Your task to perform on an android device: Check the weather Image 0: 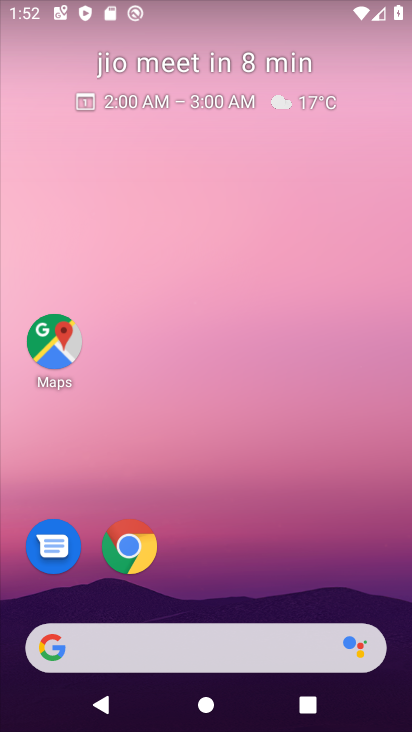
Step 0: drag from (265, 577) to (273, 24)
Your task to perform on an android device: Check the weather Image 1: 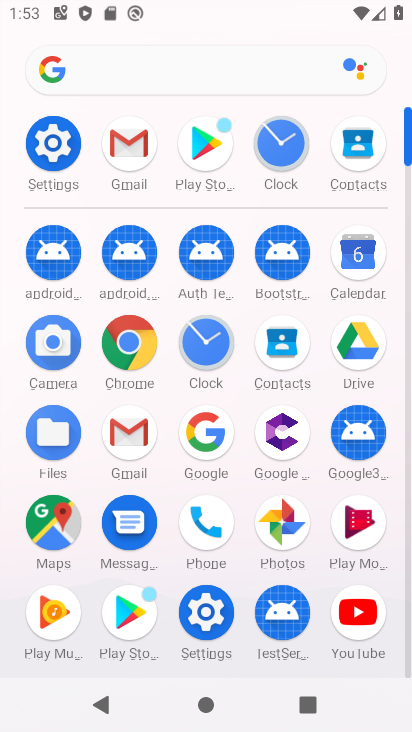
Step 1: click (176, 80)
Your task to perform on an android device: Check the weather Image 2: 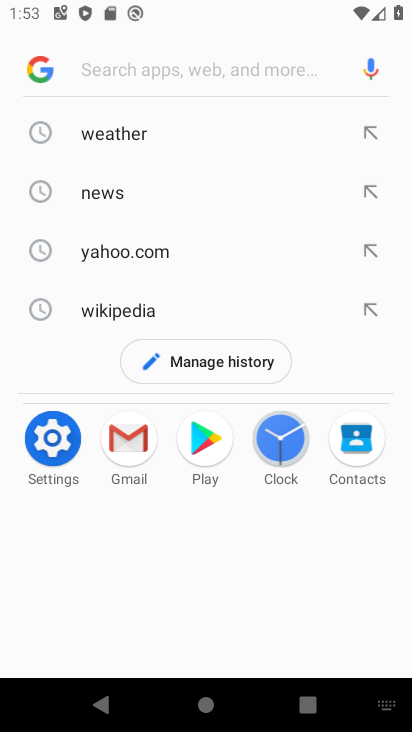
Step 2: type "whether"
Your task to perform on an android device: Check the weather Image 3: 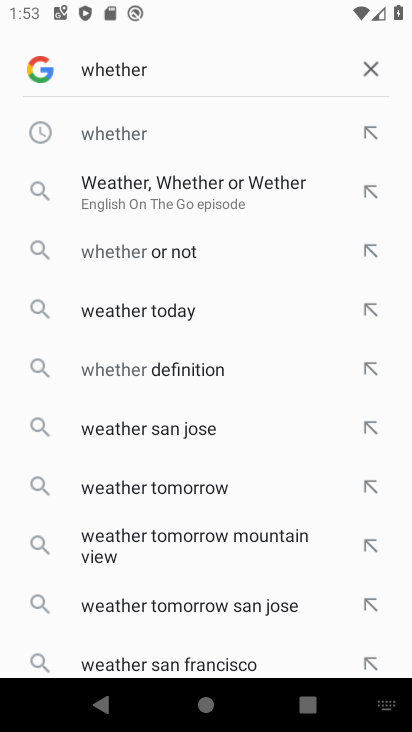
Step 3: click (144, 132)
Your task to perform on an android device: Check the weather Image 4: 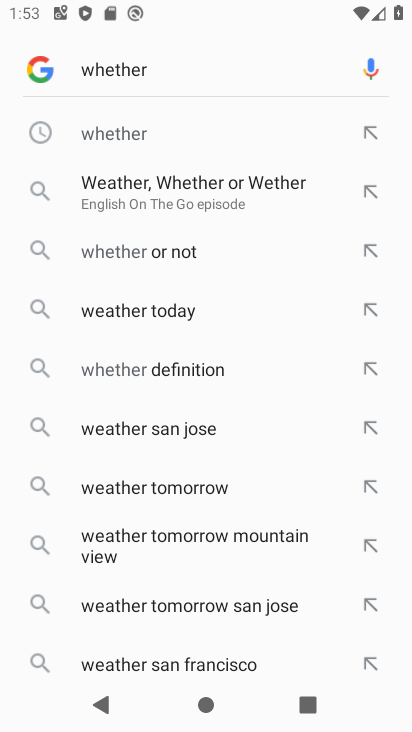
Step 4: task complete